Your task to perform on an android device: Open battery settings Image 0: 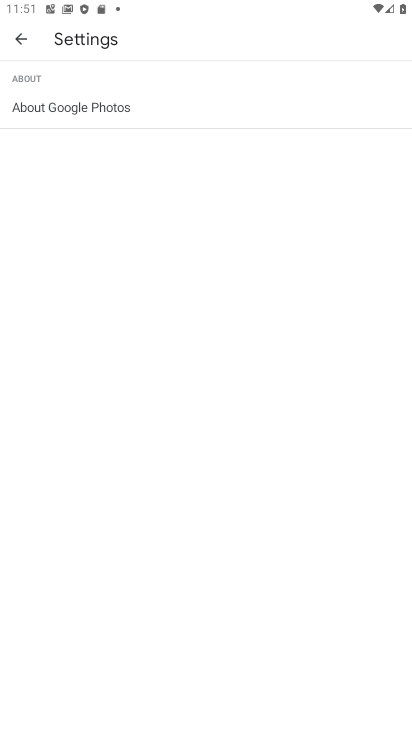
Step 0: press back button
Your task to perform on an android device: Open battery settings Image 1: 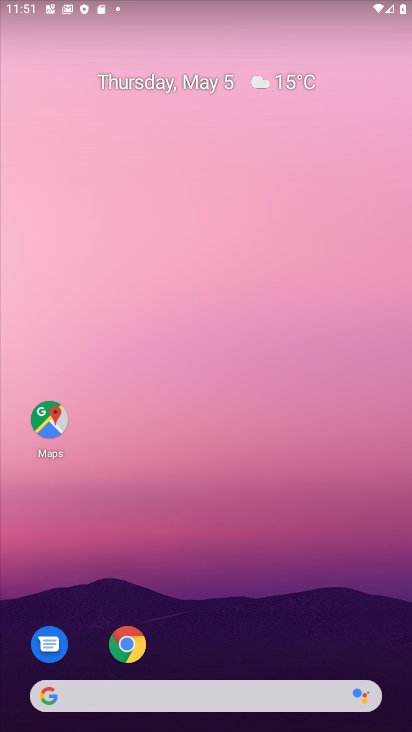
Step 1: drag from (351, 584) to (342, 10)
Your task to perform on an android device: Open battery settings Image 2: 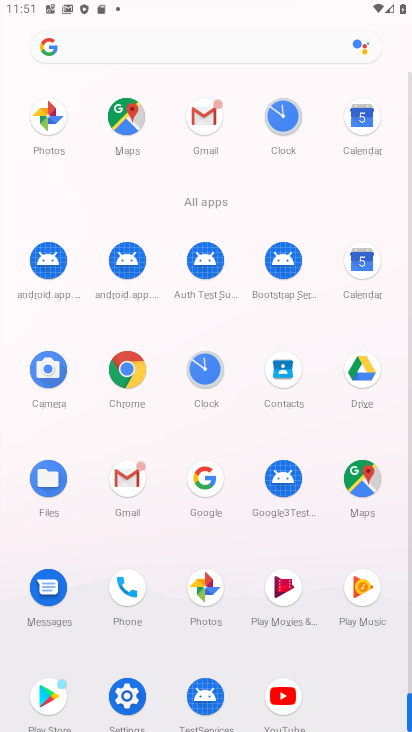
Step 2: drag from (9, 638) to (12, 409)
Your task to perform on an android device: Open battery settings Image 3: 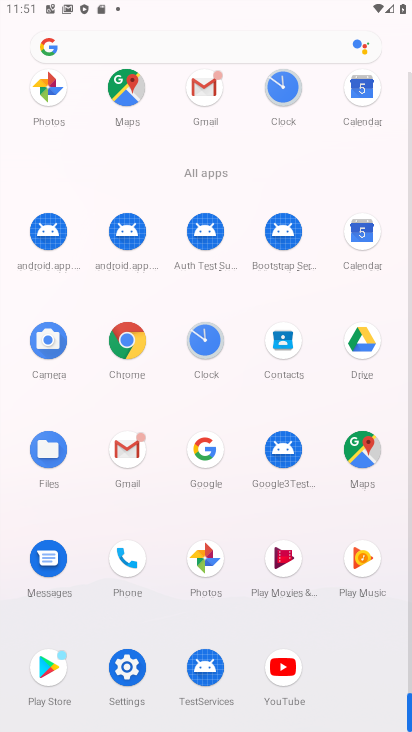
Step 3: click (126, 665)
Your task to perform on an android device: Open battery settings Image 4: 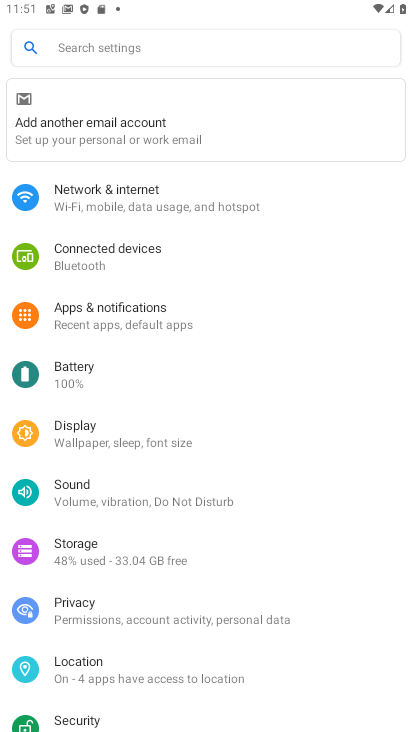
Step 4: click (96, 379)
Your task to perform on an android device: Open battery settings Image 5: 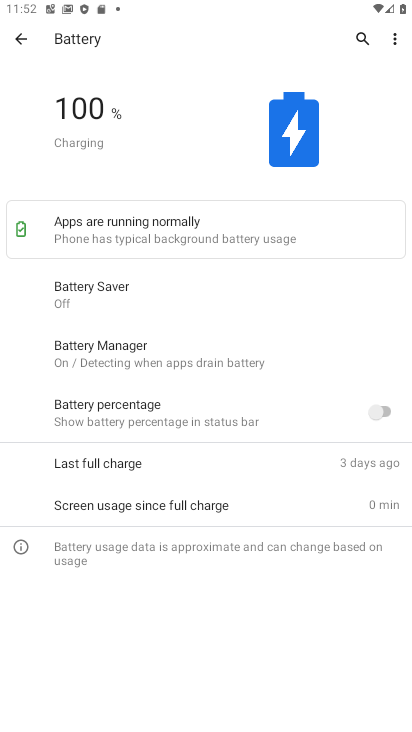
Step 5: task complete